Your task to perform on an android device: Is it going to rain this weekend? Image 0: 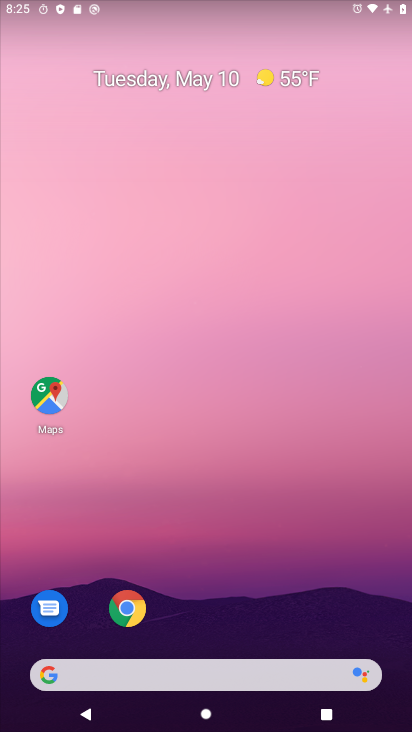
Step 0: drag from (212, 568) to (192, 63)
Your task to perform on an android device: Is it going to rain this weekend? Image 1: 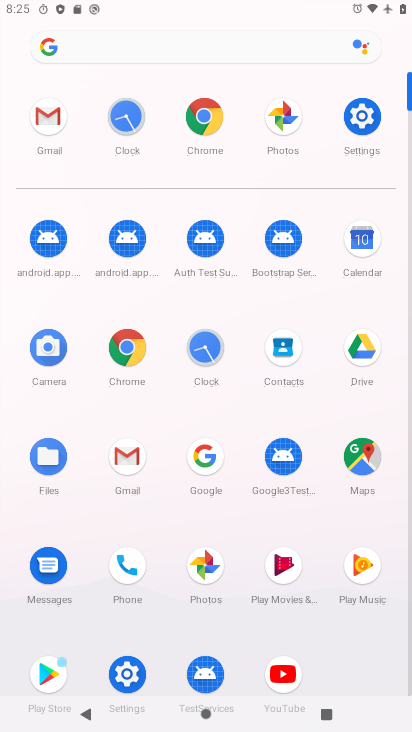
Step 1: click (203, 456)
Your task to perform on an android device: Is it going to rain this weekend? Image 2: 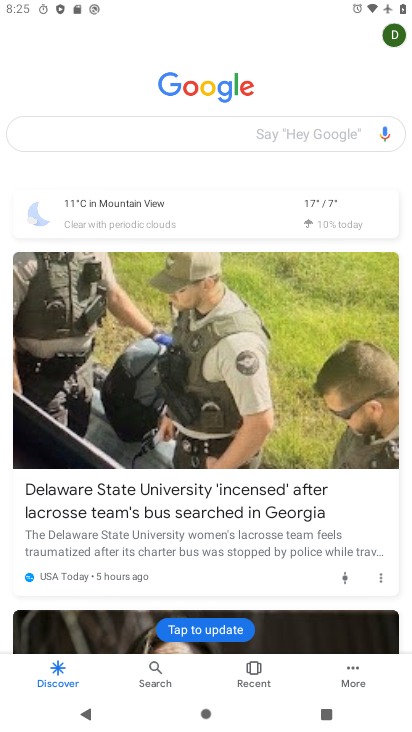
Step 2: click (259, 138)
Your task to perform on an android device: Is it going to rain this weekend? Image 3: 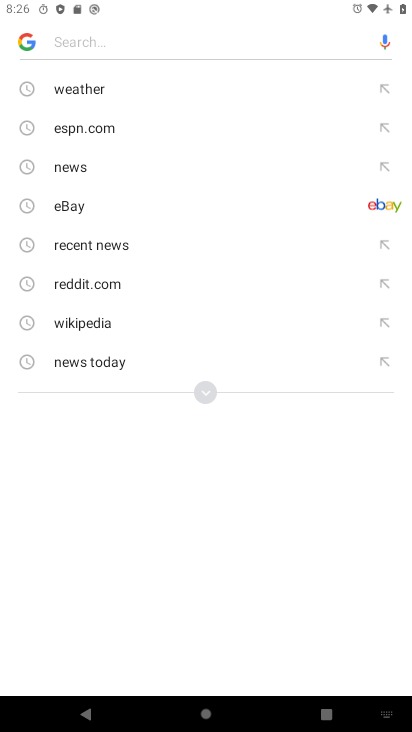
Step 3: type "is it goinig to rain this weekend"
Your task to perform on an android device: Is it going to rain this weekend? Image 4: 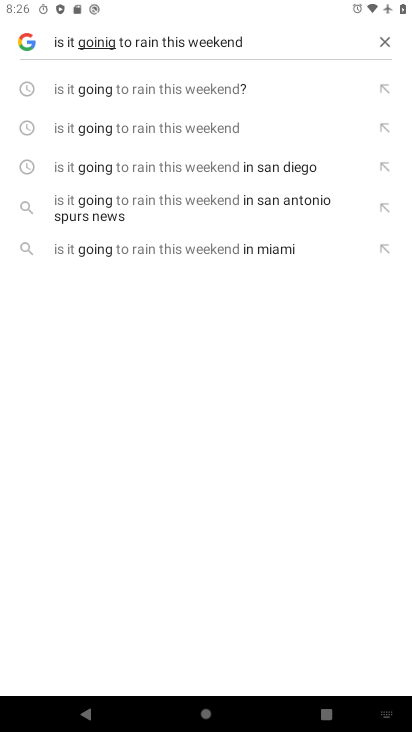
Step 4: click (200, 92)
Your task to perform on an android device: Is it going to rain this weekend? Image 5: 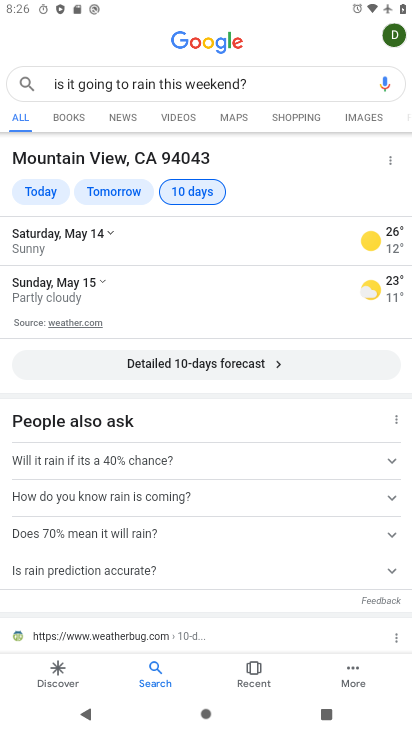
Step 5: task complete